Your task to perform on an android device: Open Chrome and go to settings Image 0: 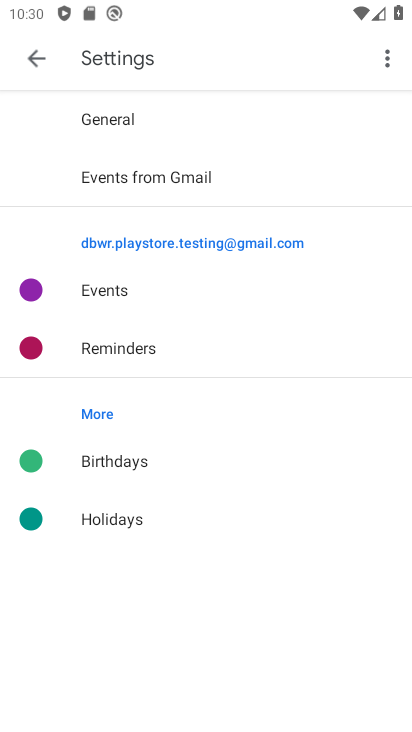
Step 0: press home button
Your task to perform on an android device: Open Chrome and go to settings Image 1: 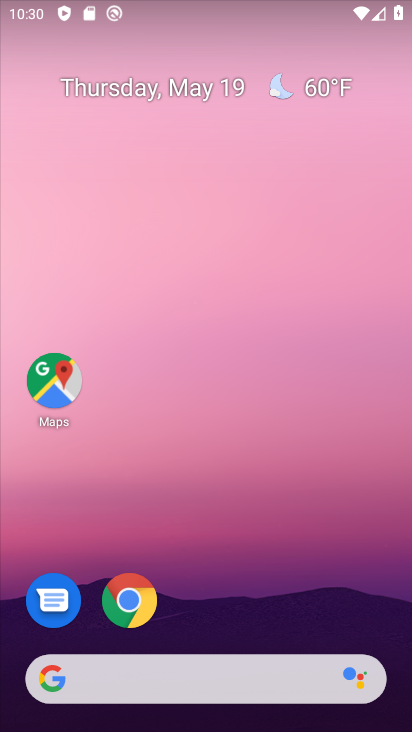
Step 1: drag from (383, 619) to (383, 266)
Your task to perform on an android device: Open Chrome and go to settings Image 2: 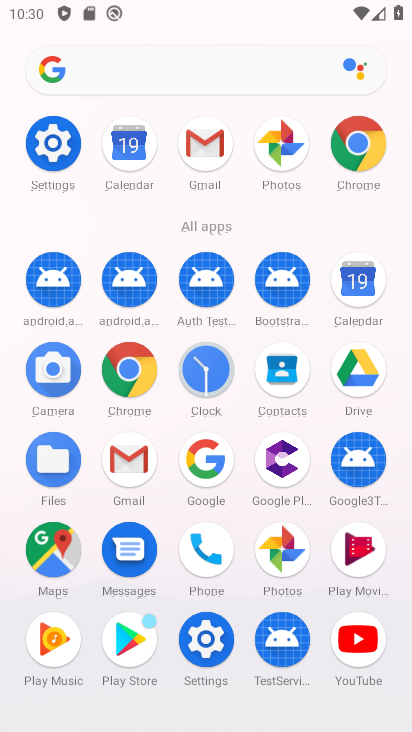
Step 2: click (141, 392)
Your task to perform on an android device: Open Chrome and go to settings Image 3: 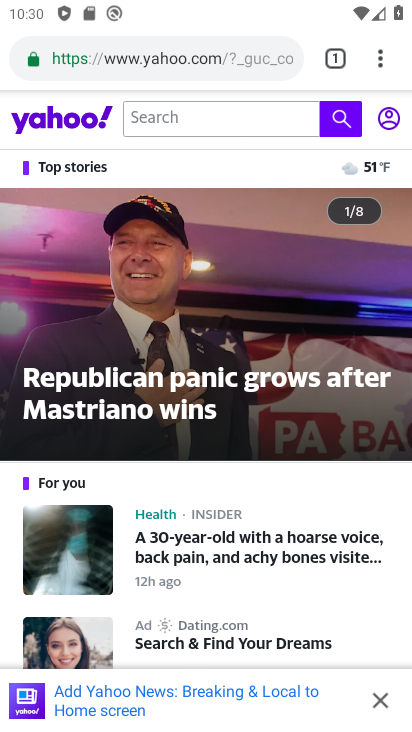
Step 3: click (385, 57)
Your task to perform on an android device: Open Chrome and go to settings Image 4: 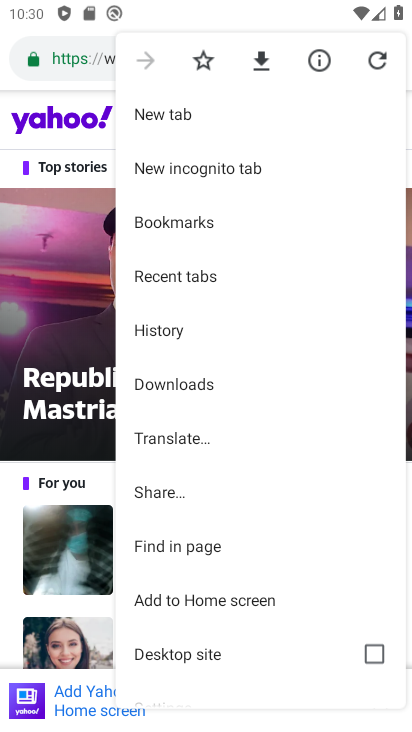
Step 4: drag from (337, 493) to (334, 418)
Your task to perform on an android device: Open Chrome and go to settings Image 5: 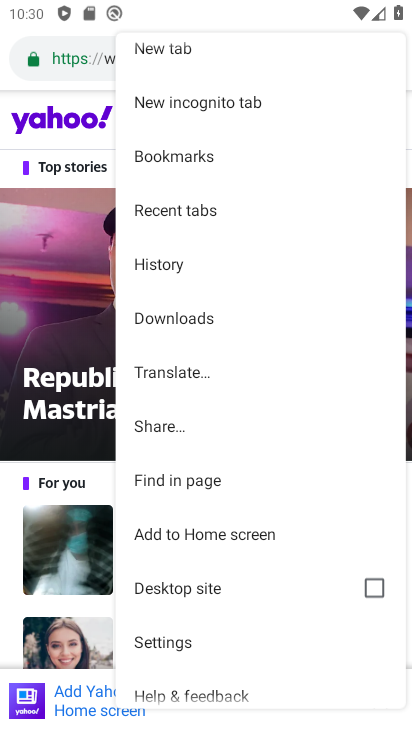
Step 5: drag from (309, 528) to (321, 437)
Your task to perform on an android device: Open Chrome and go to settings Image 6: 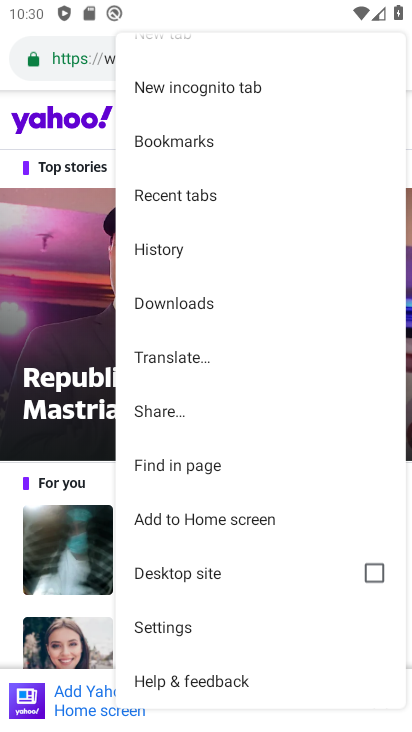
Step 6: click (221, 631)
Your task to perform on an android device: Open Chrome and go to settings Image 7: 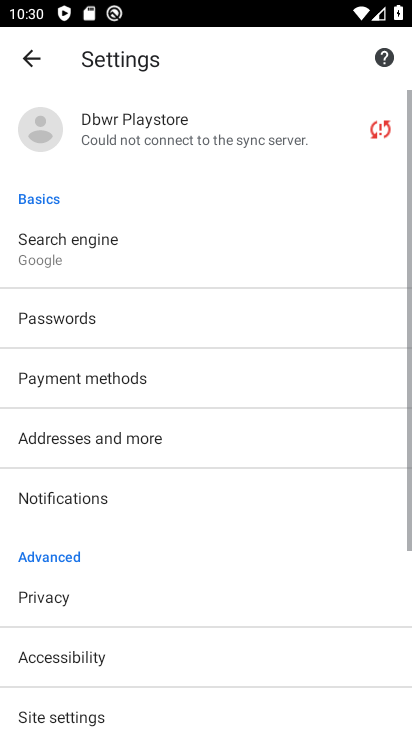
Step 7: task complete